Your task to perform on an android device: toggle location history Image 0: 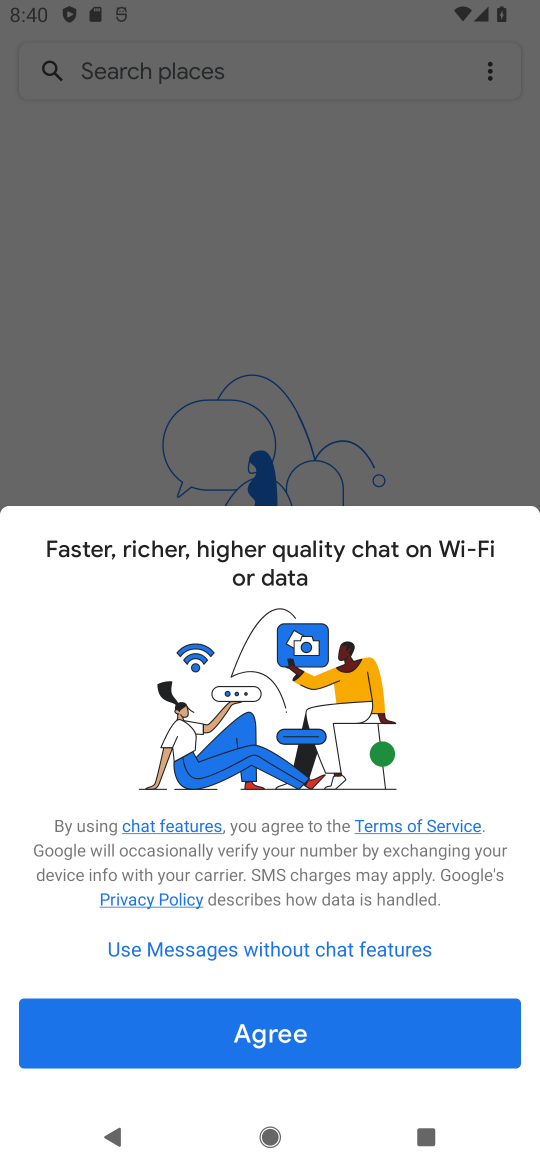
Step 0: press home button
Your task to perform on an android device: toggle location history Image 1: 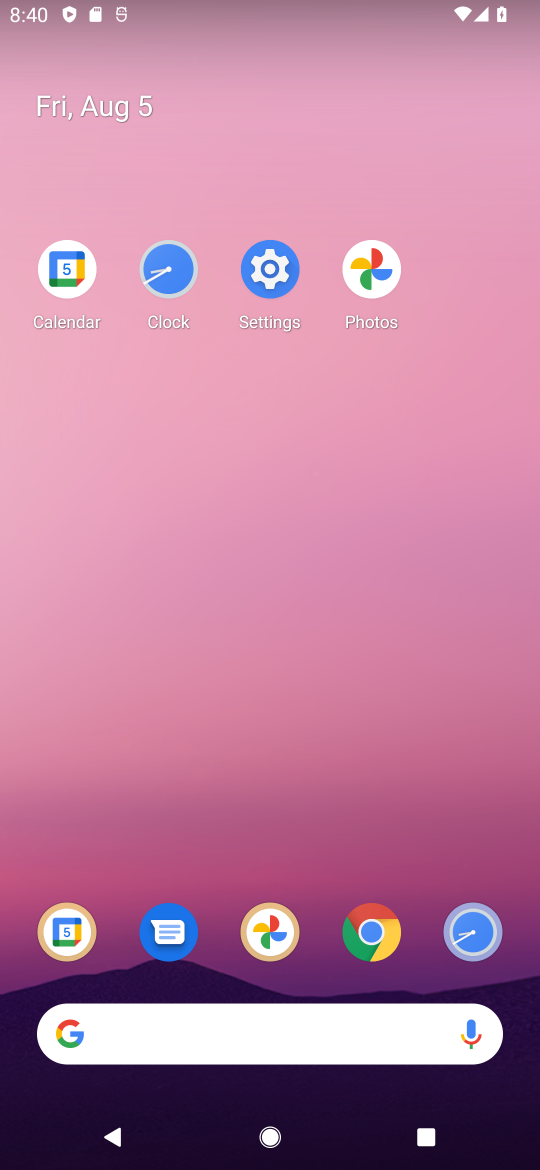
Step 1: click (274, 268)
Your task to perform on an android device: toggle location history Image 2: 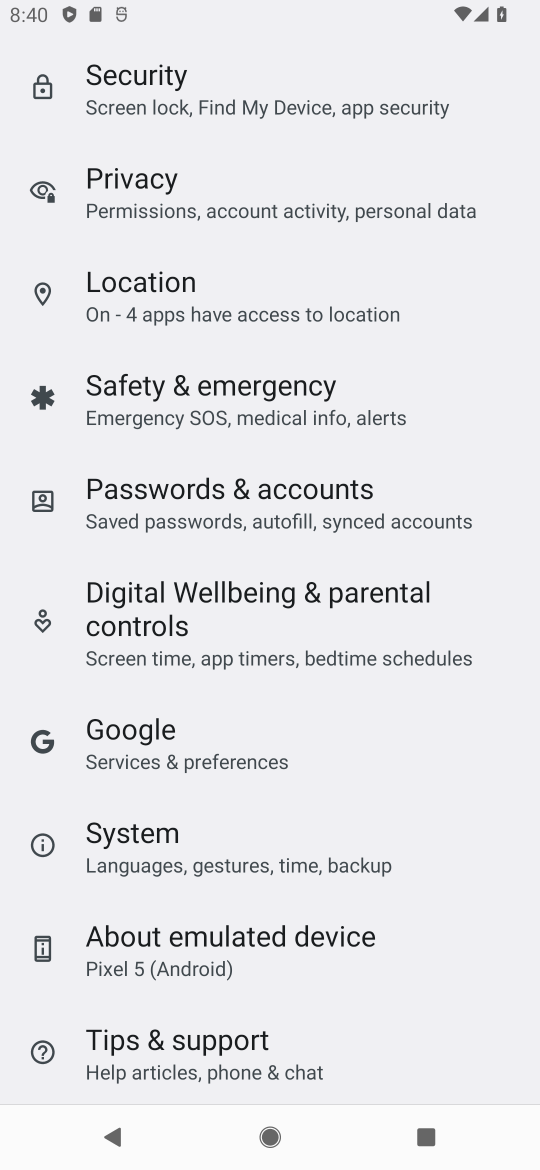
Step 2: click (282, 296)
Your task to perform on an android device: toggle location history Image 3: 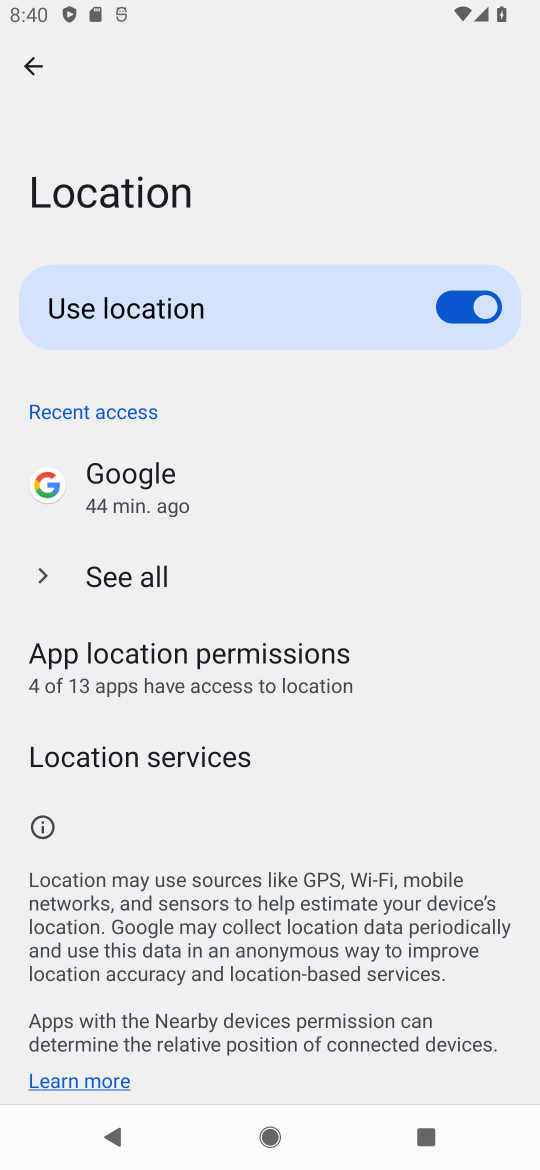
Step 3: drag from (296, 831) to (215, 260)
Your task to perform on an android device: toggle location history Image 4: 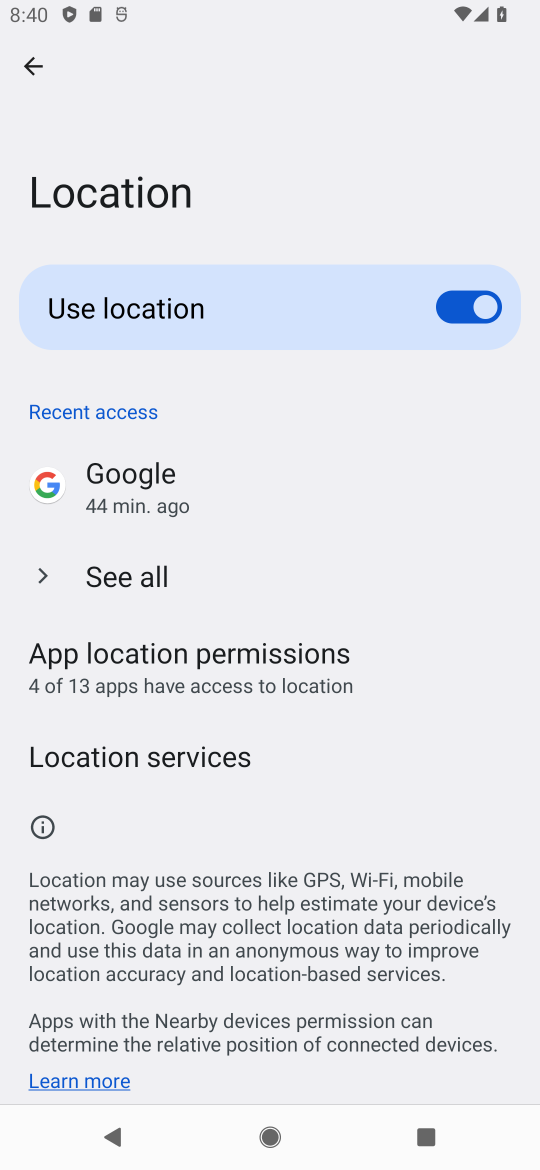
Step 4: click (266, 758)
Your task to perform on an android device: toggle location history Image 5: 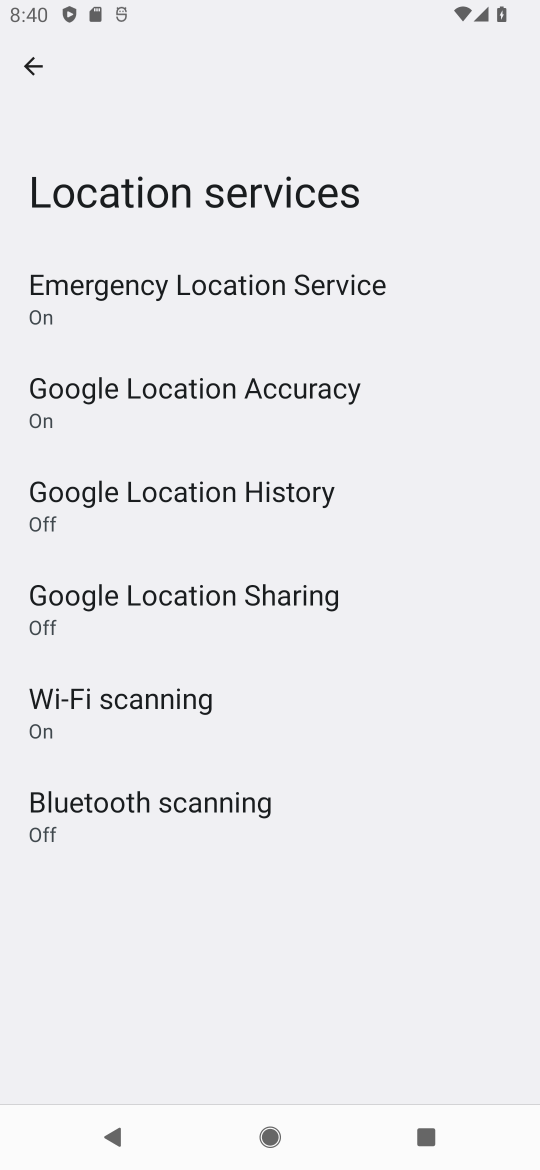
Step 5: click (264, 493)
Your task to perform on an android device: toggle location history Image 6: 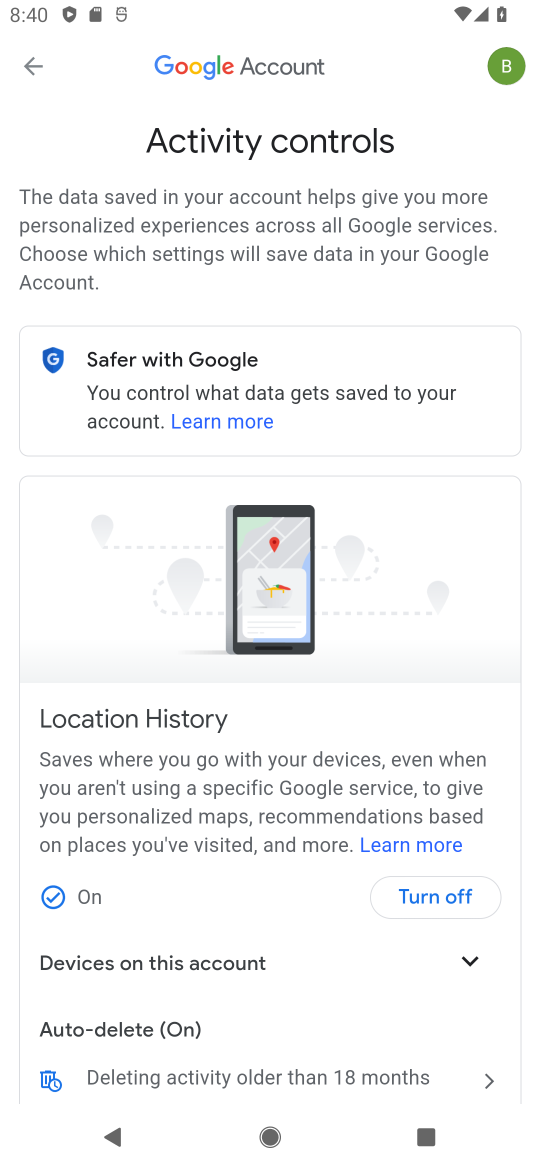
Step 6: click (432, 900)
Your task to perform on an android device: toggle location history Image 7: 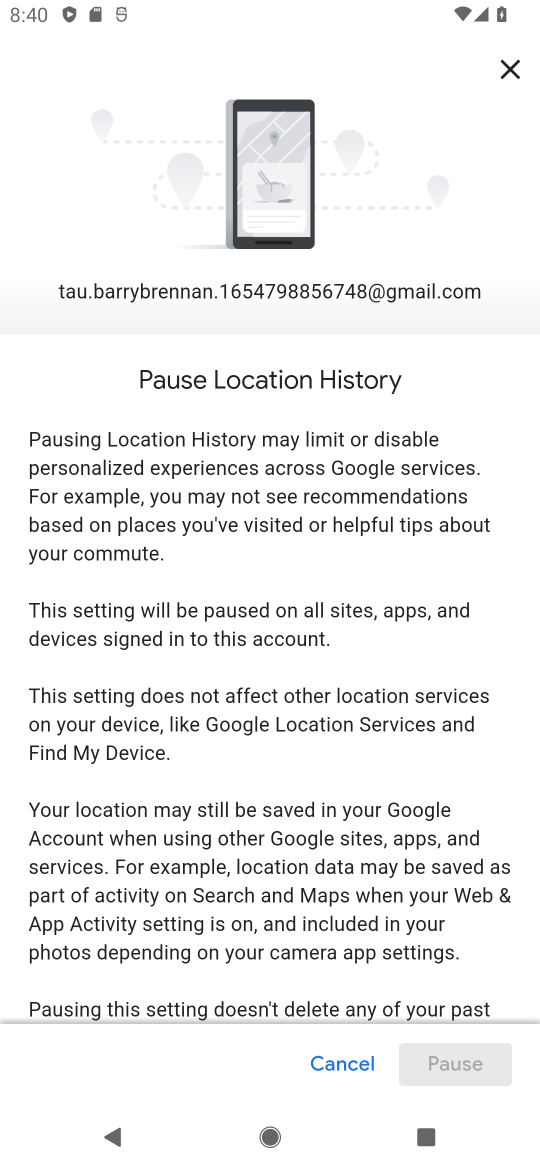
Step 7: drag from (452, 964) to (365, 356)
Your task to perform on an android device: toggle location history Image 8: 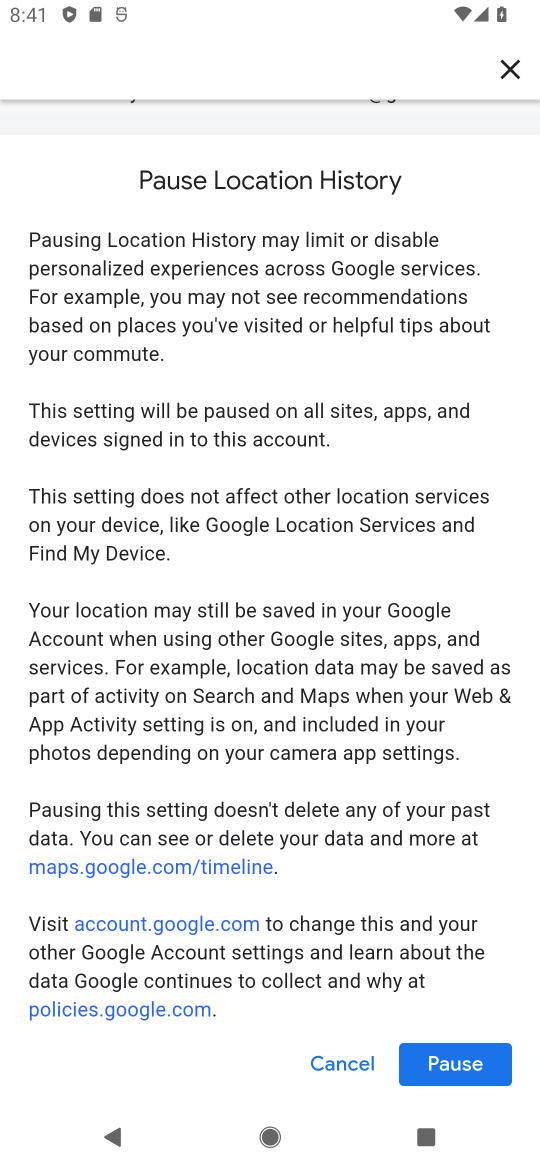
Step 8: click (454, 1062)
Your task to perform on an android device: toggle location history Image 9: 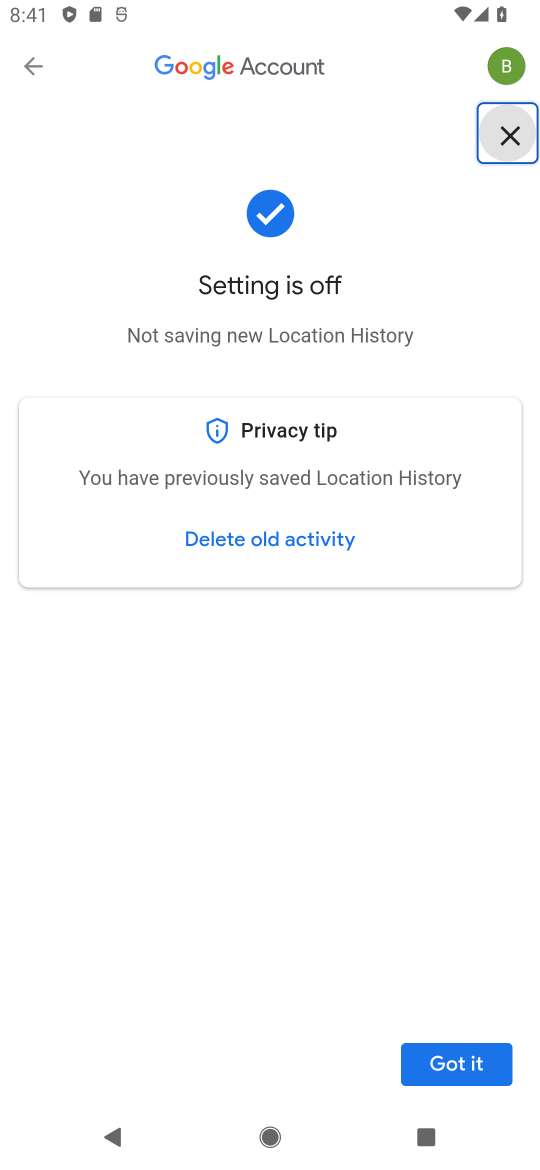
Step 9: click (443, 1056)
Your task to perform on an android device: toggle location history Image 10: 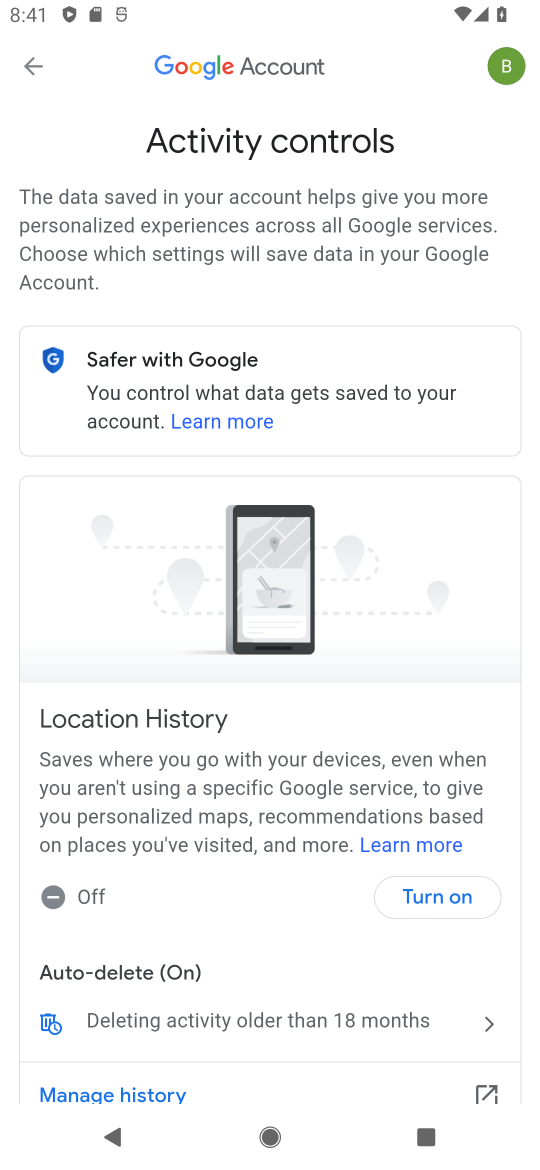
Step 10: task complete